Your task to perform on an android device: Open the web browser Image 0: 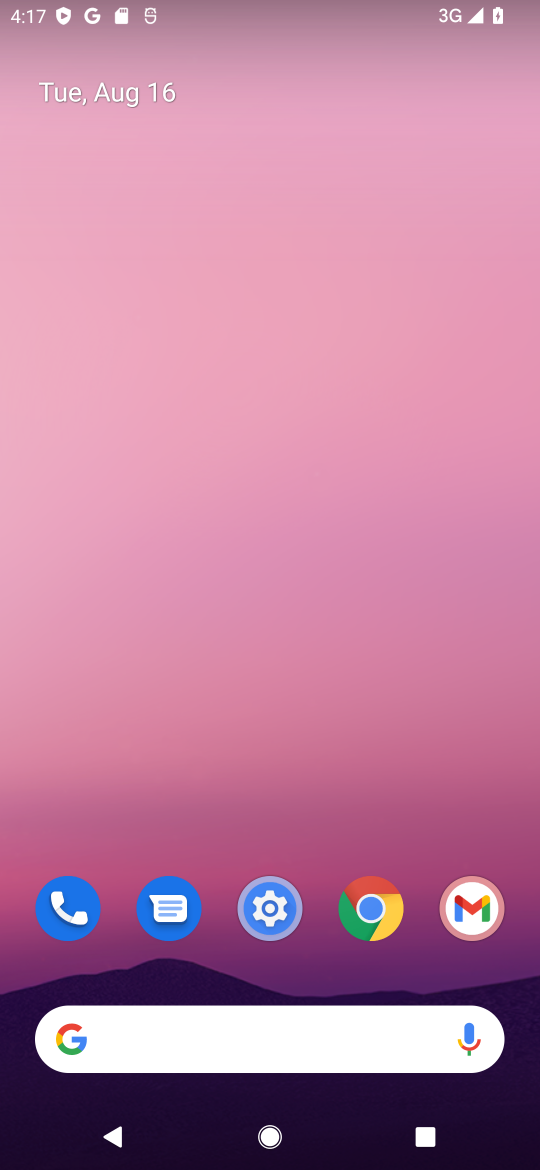
Step 0: click (378, 913)
Your task to perform on an android device: Open the web browser Image 1: 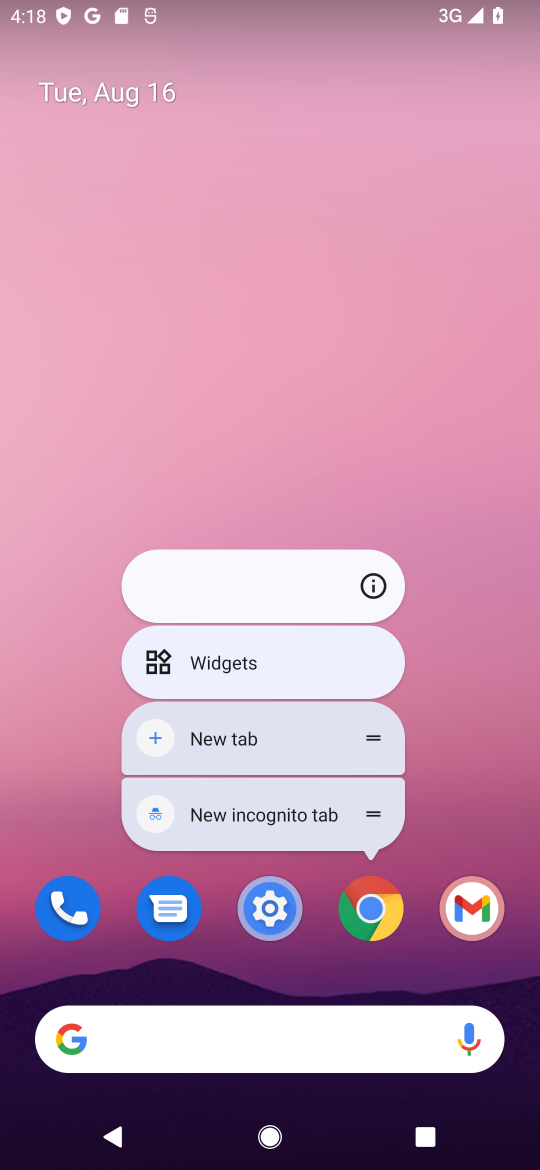
Step 1: click (370, 910)
Your task to perform on an android device: Open the web browser Image 2: 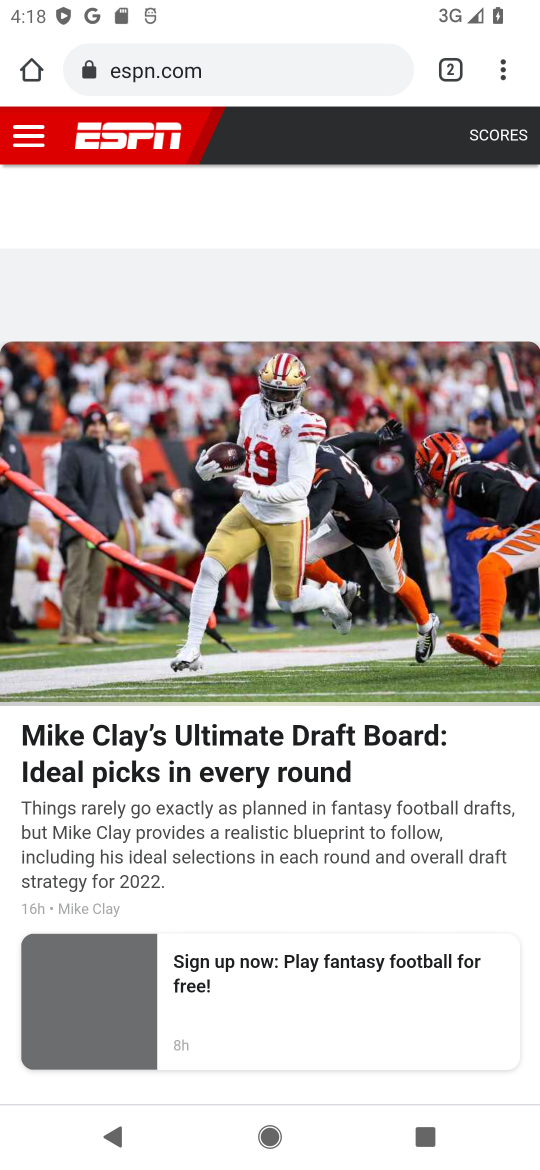
Step 2: task complete